Your task to perform on an android device: Go to notification settings Image 0: 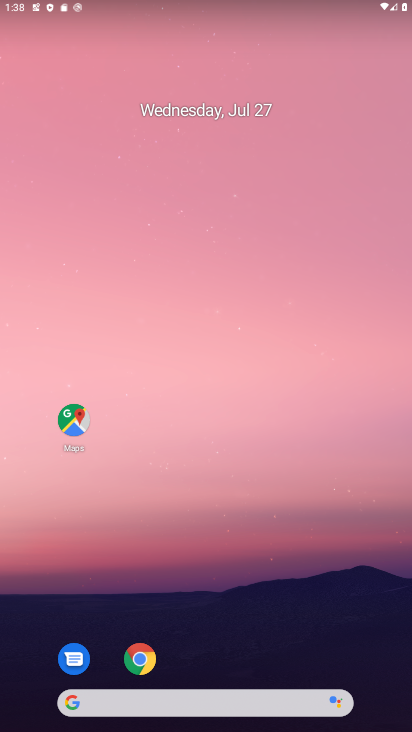
Step 0: drag from (331, 564) to (165, 22)
Your task to perform on an android device: Go to notification settings Image 1: 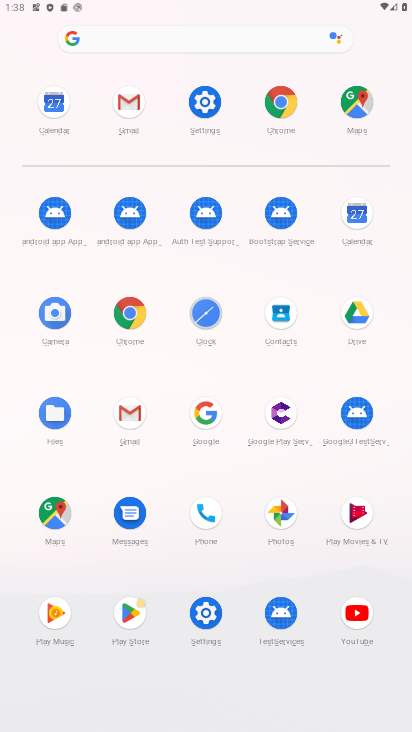
Step 1: click (210, 100)
Your task to perform on an android device: Go to notification settings Image 2: 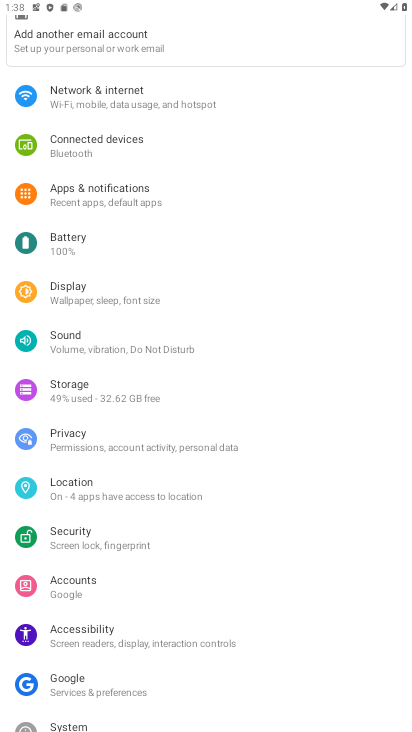
Step 2: click (118, 198)
Your task to perform on an android device: Go to notification settings Image 3: 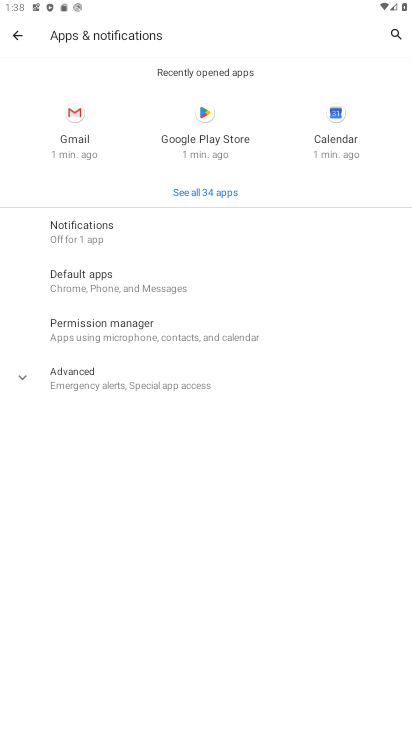
Step 3: click (97, 229)
Your task to perform on an android device: Go to notification settings Image 4: 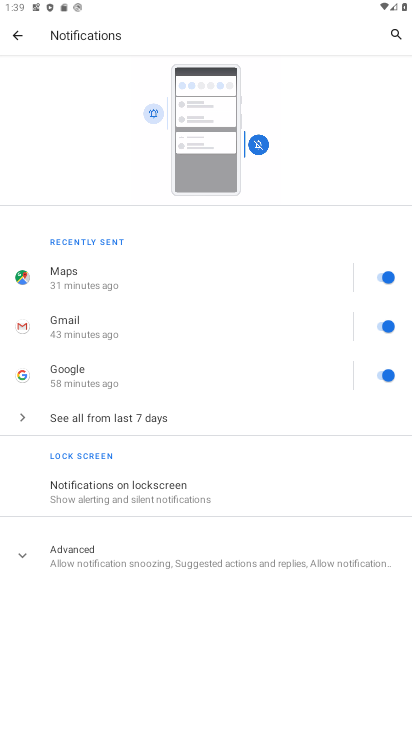
Step 4: task complete